Your task to perform on an android device: read, delete, or share a saved page in the chrome app Image 0: 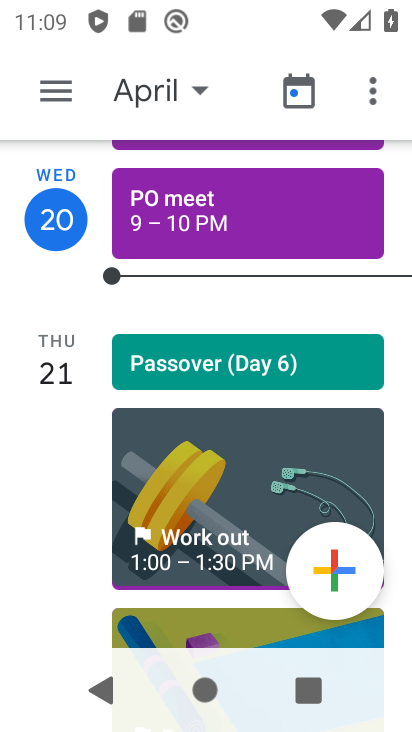
Step 0: press home button
Your task to perform on an android device: read, delete, or share a saved page in the chrome app Image 1: 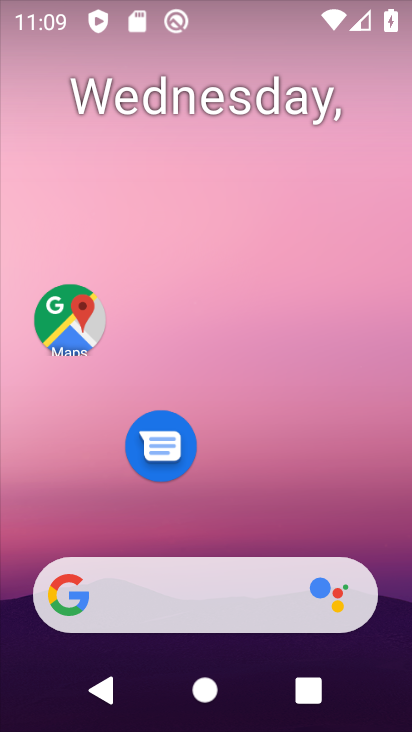
Step 1: drag from (242, 384) to (195, 135)
Your task to perform on an android device: read, delete, or share a saved page in the chrome app Image 2: 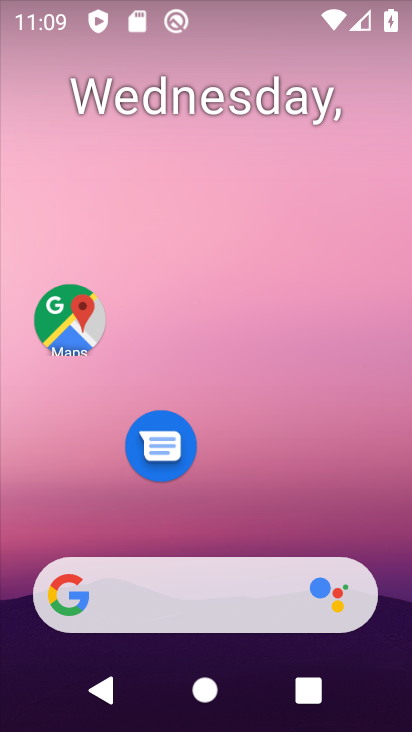
Step 2: drag from (257, 506) to (237, 64)
Your task to perform on an android device: read, delete, or share a saved page in the chrome app Image 3: 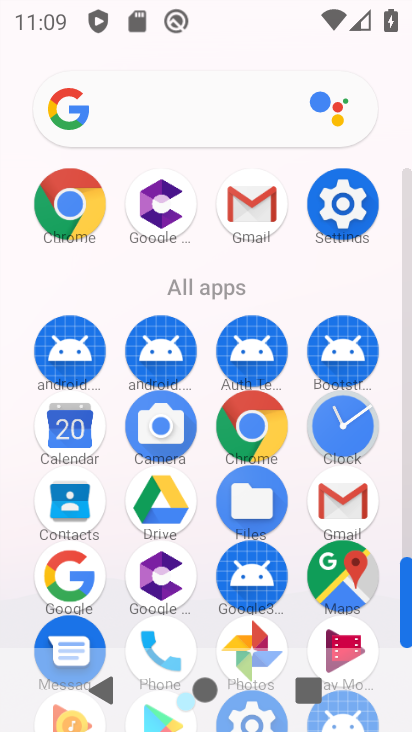
Step 3: click (250, 430)
Your task to perform on an android device: read, delete, or share a saved page in the chrome app Image 4: 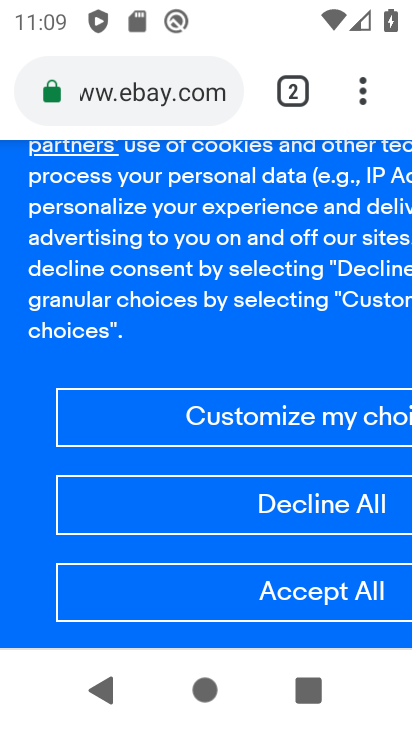
Step 4: task complete